Your task to perform on an android device: Add "usb-c to usb-b" to the cart on amazon, then select checkout. Image 0: 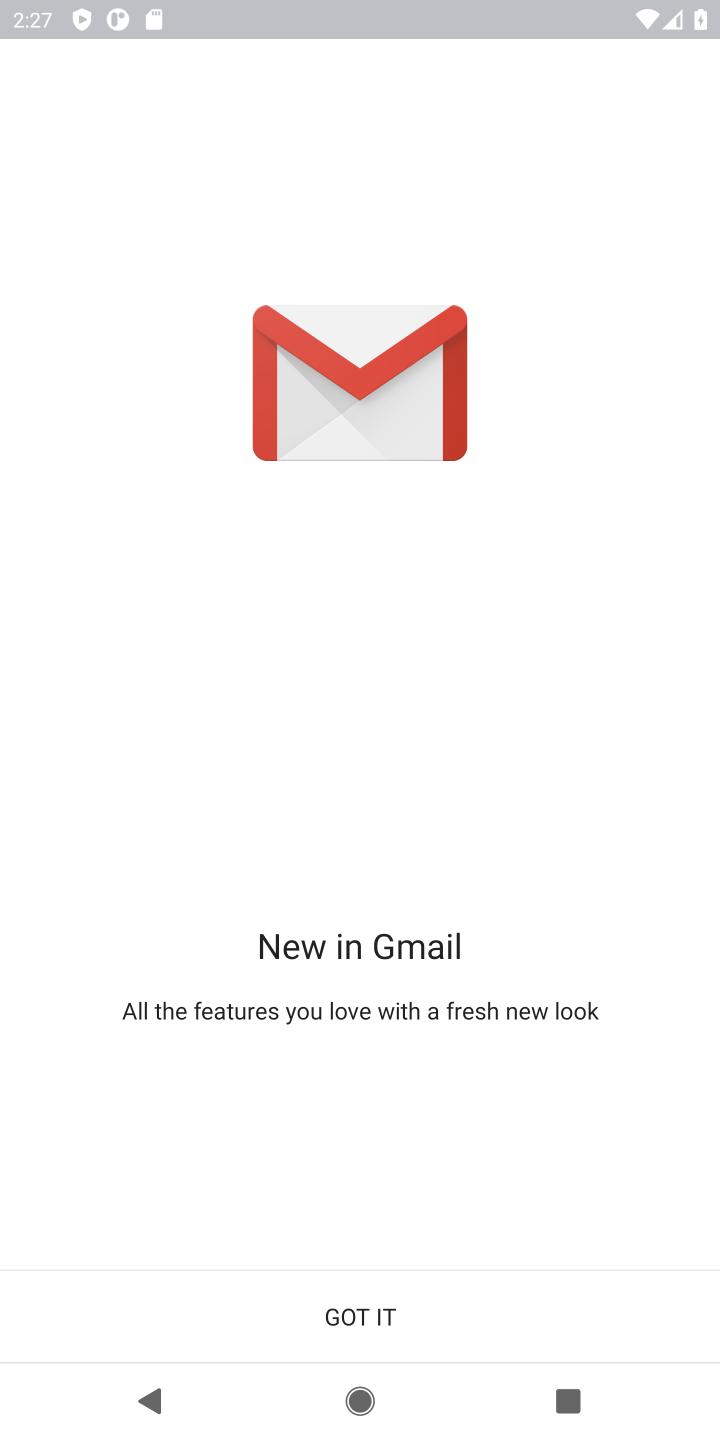
Step 0: click (414, 1315)
Your task to perform on an android device: Add "usb-c to usb-b" to the cart on amazon, then select checkout. Image 1: 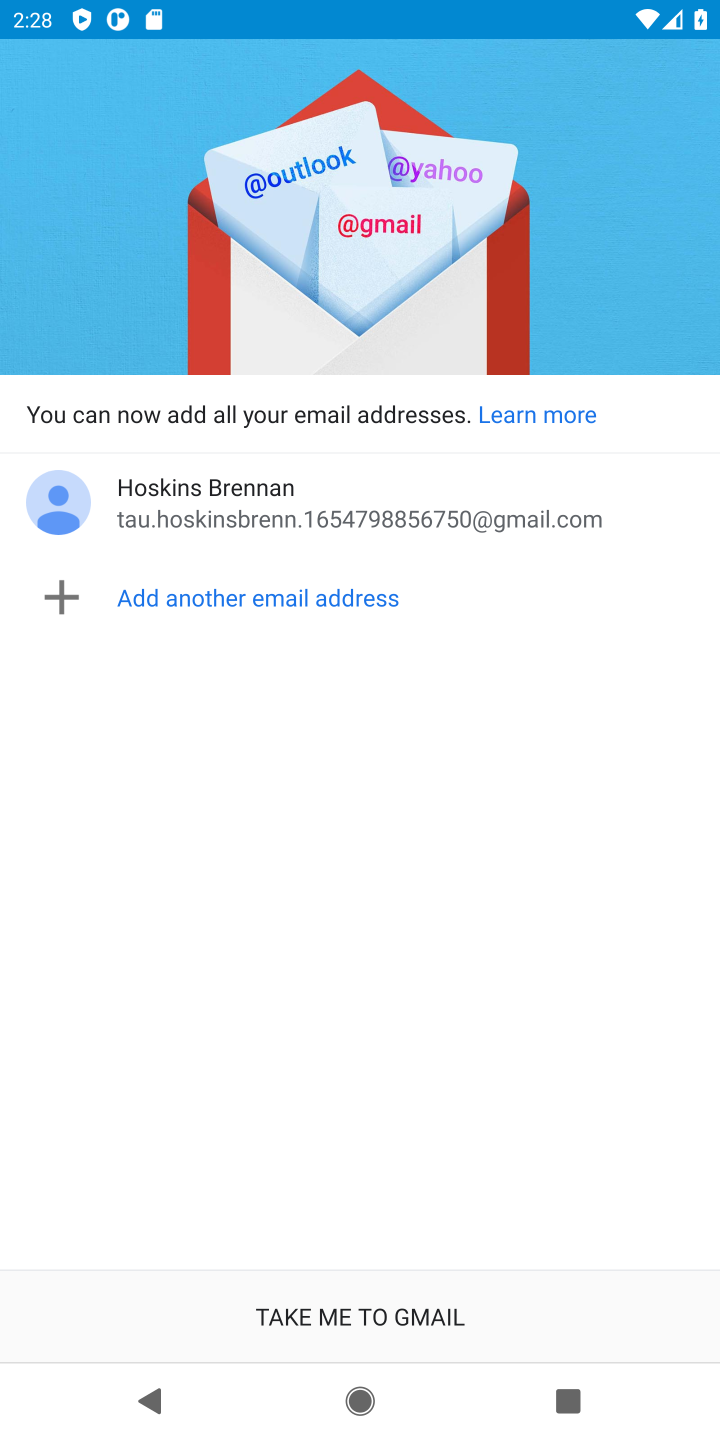
Step 1: press home button
Your task to perform on an android device: Add "usb-c to usb-b" to the cart on amazon, then select checkout. Image 2: 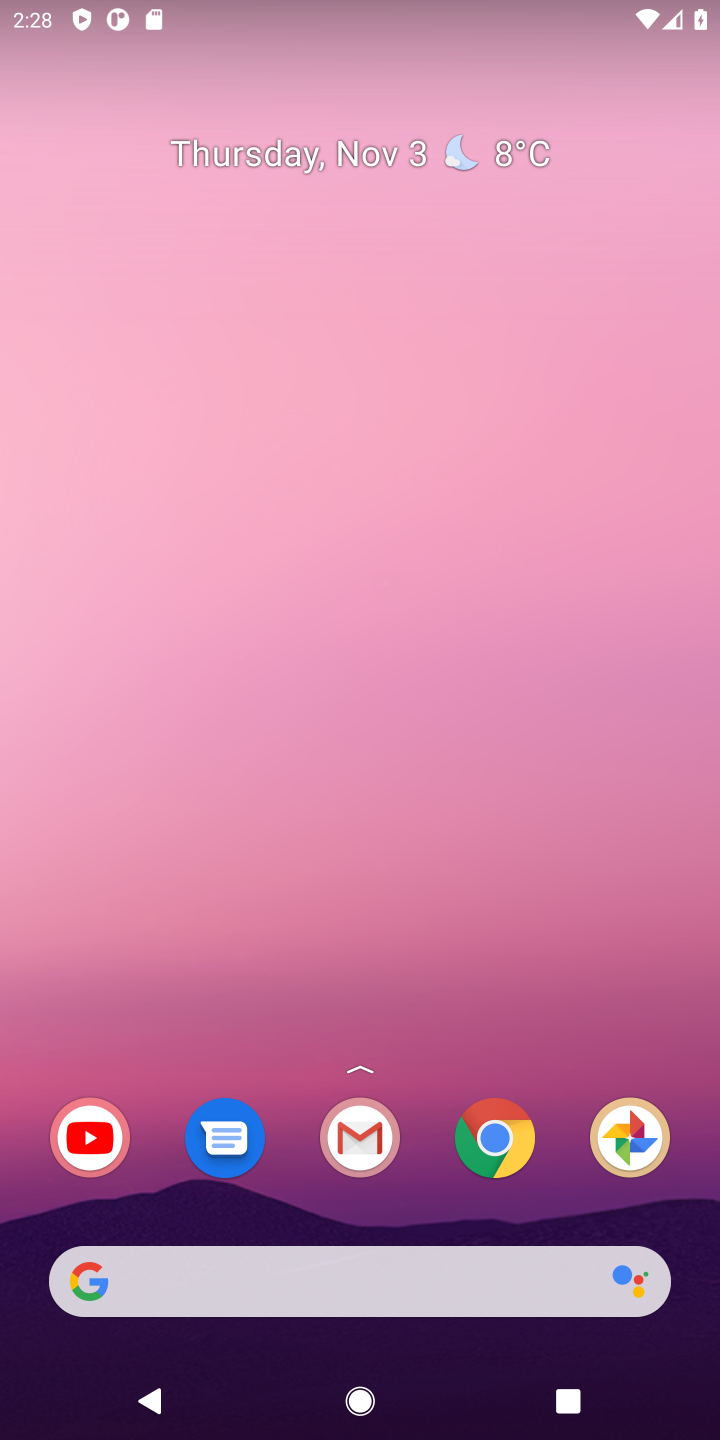
Step 2: click (518, 1134)
Your task to perform on an android device: Add "usb-c to usb-b" to the cart on amazon, then select checkout. Image 3: 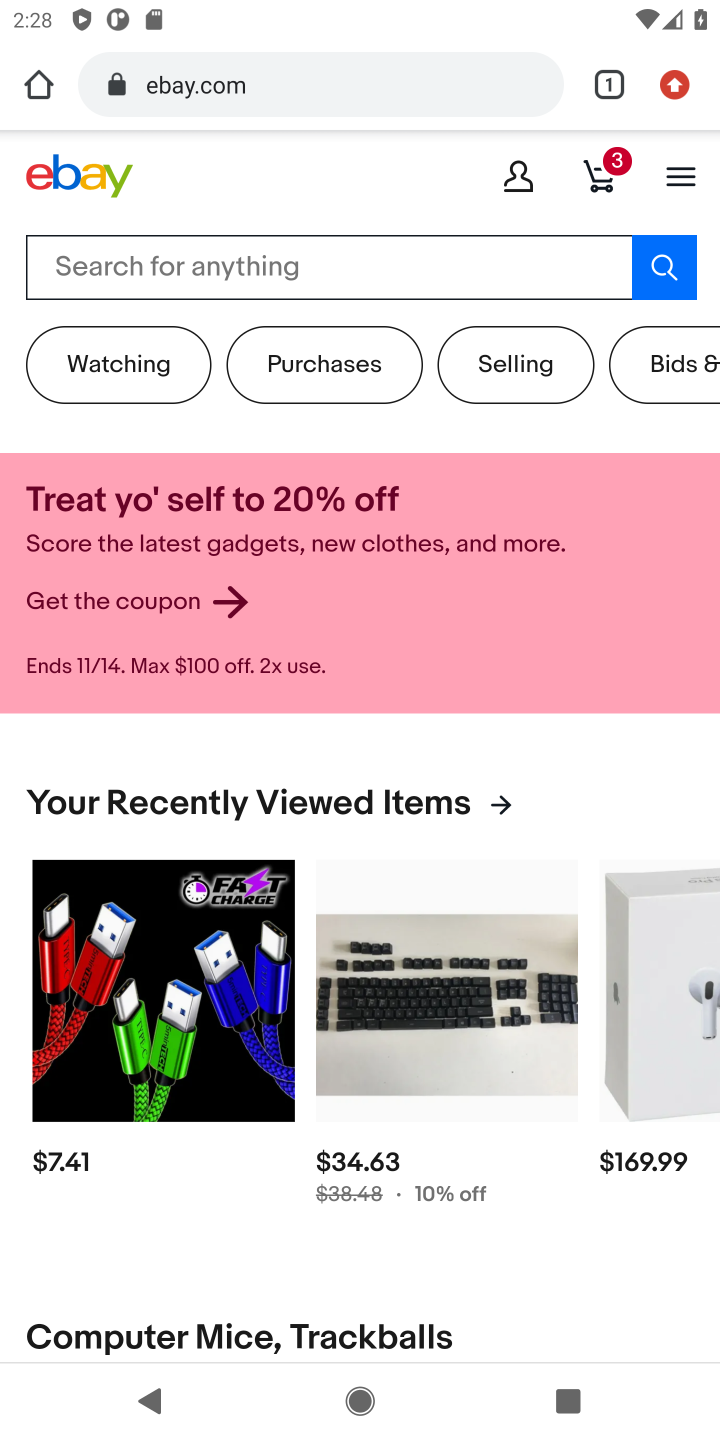
Step 3: click (220, 78)
Your task to perform on an android device: Add "usb-c to usb-b" to the cart on amazon, then select checkout. Image 4: 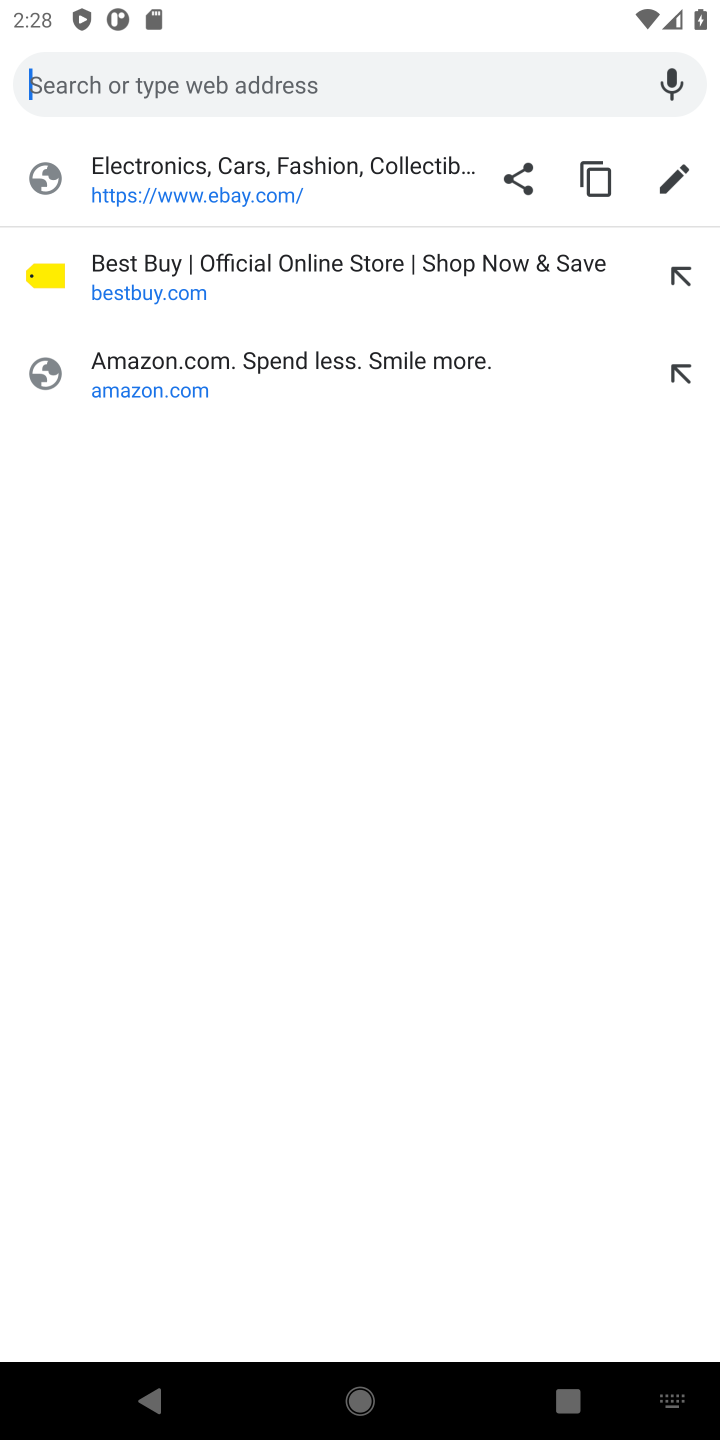
Step 4: type "amazon"
Your task to perform on an android device: Add "usb-c to usb-b" to the cart on amazon, then select checkout. Image 5: 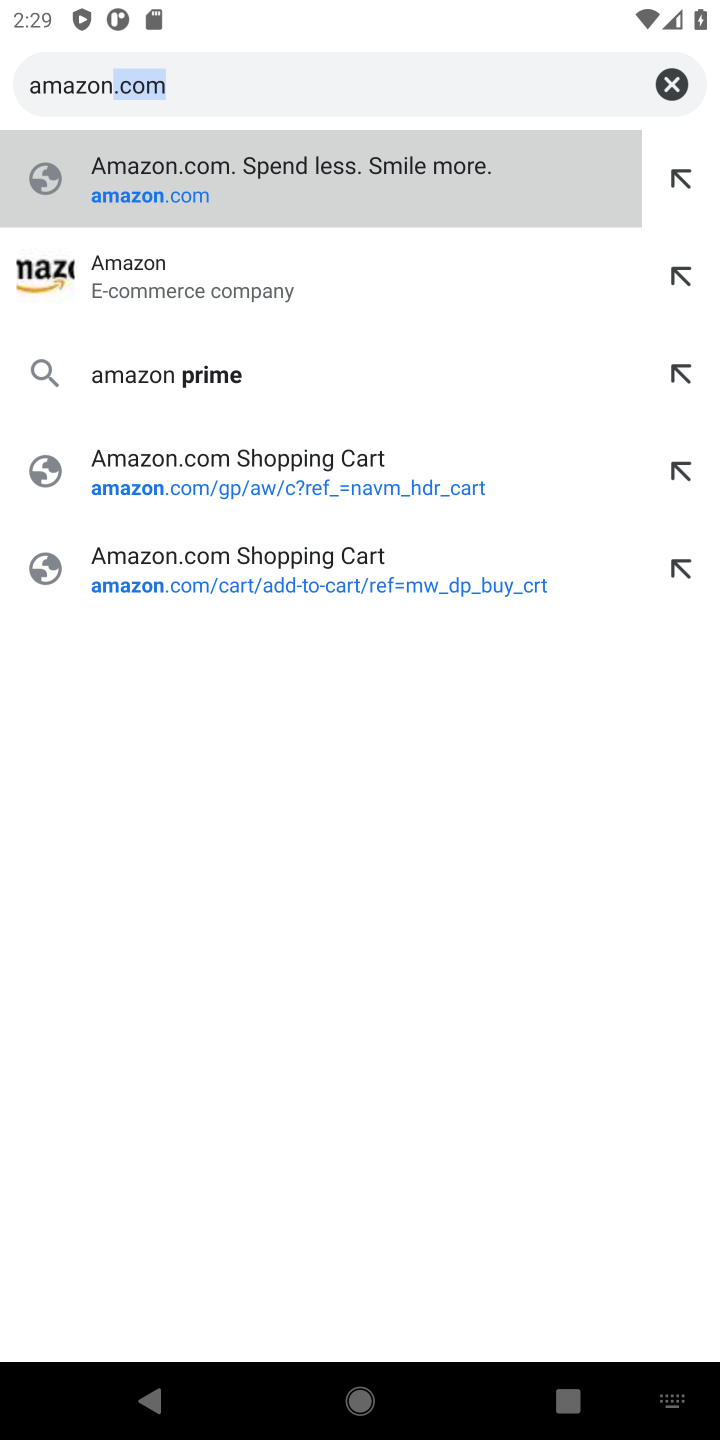
Step 5: click (142, 298)
Your task to perform on an android device: Add "usb-c to usb-b" to the cart on amazon, then select checkout. Image 6: 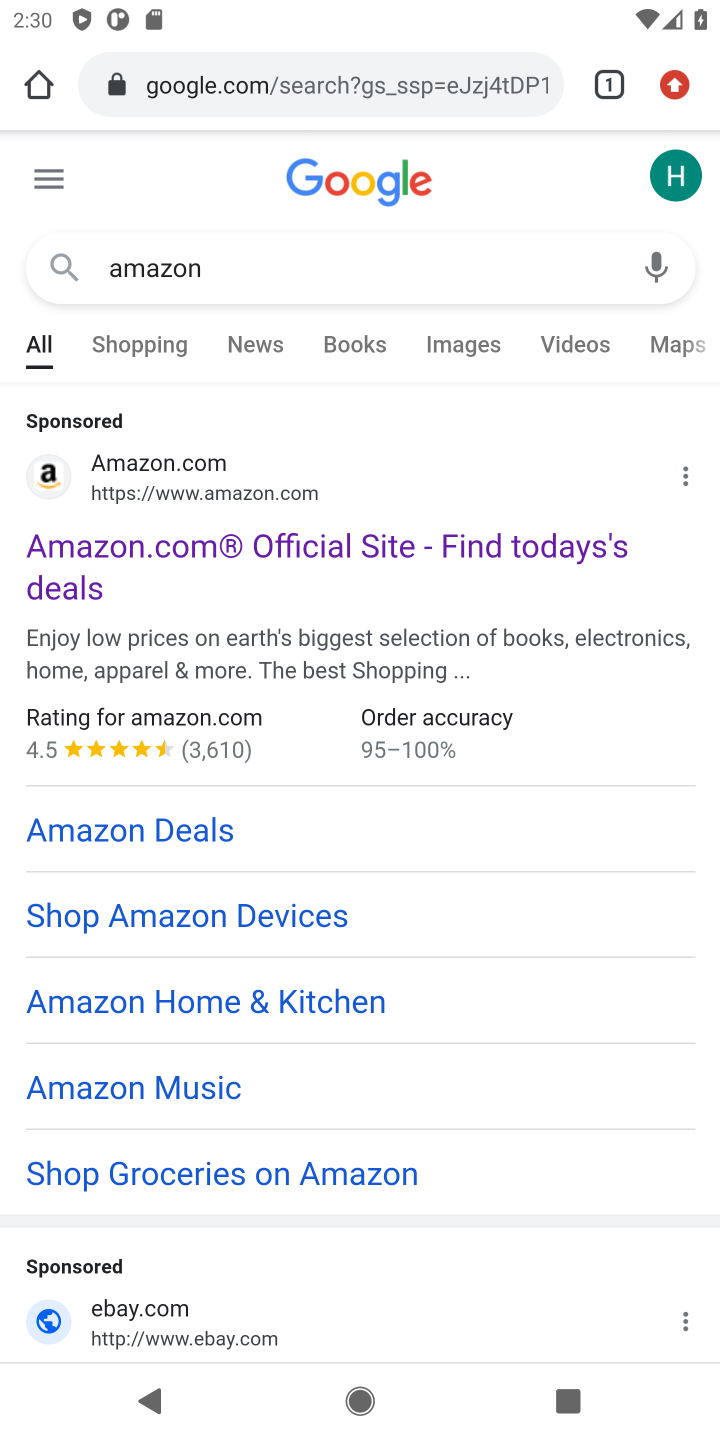
Step 6: click (85, 580)
Your task to perform on an android device: Add "usb-c to usb-b" to the cart on amazon, then select checkout. Image 7: 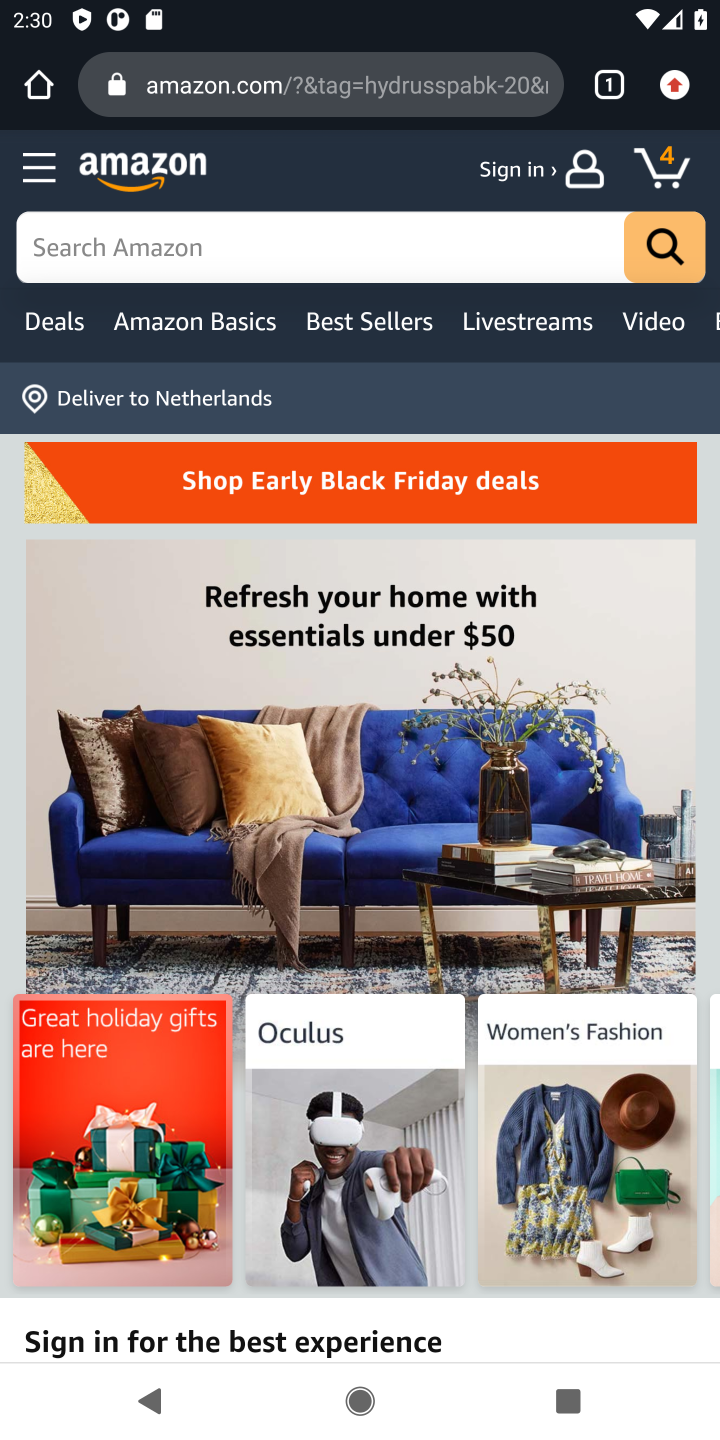
Step 7: click (82, 246)
Your task to perform on an android device: Add "usb-c to usb-b" to the cart on amazon, then select checkout. Image 8: 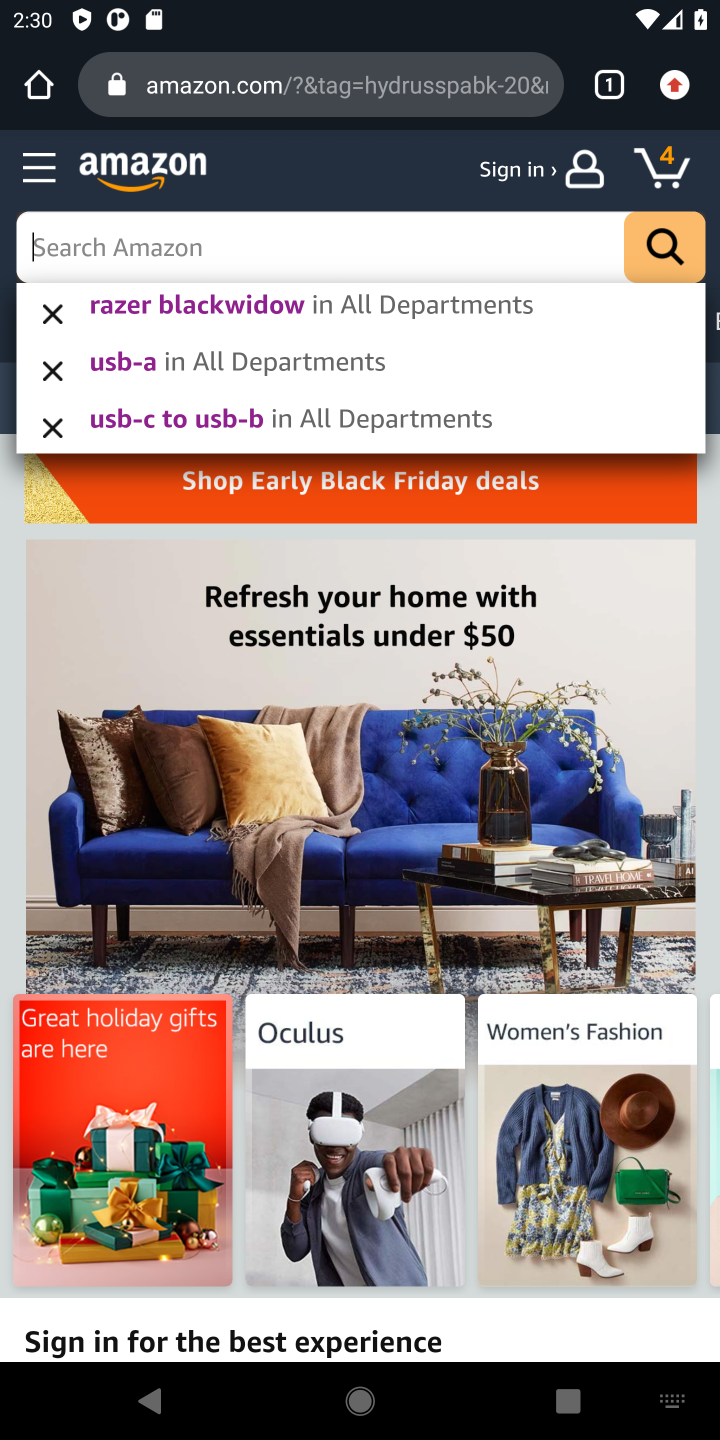
Step 8: type "usb-c to usb-"
Your task to perform on an android device: Add "usb-c to usb-b" to the cart on amazon, then select checkout. Image 9: 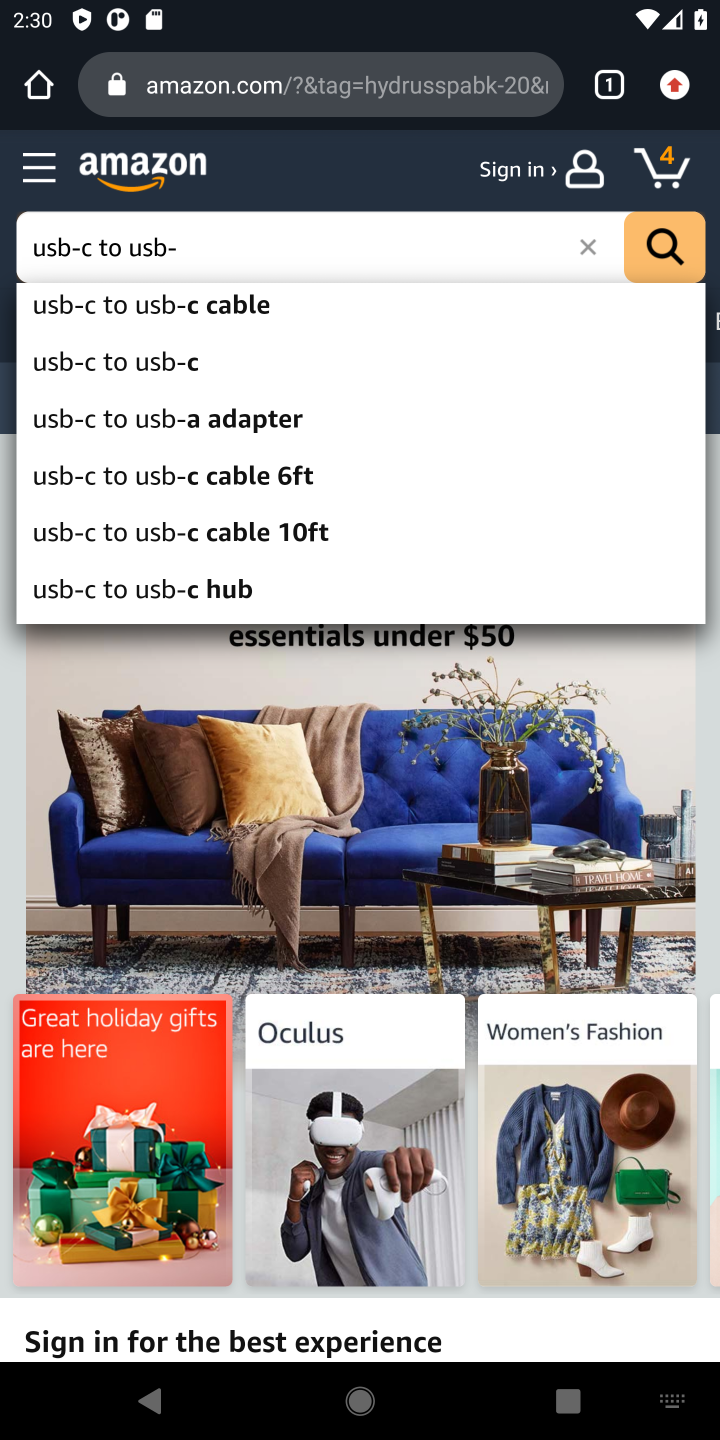
Step 9: type "b"
Your task to perform on an android device: Add "usb-c to usb-b" to the cart on amazon, then select checkout. Image 10: 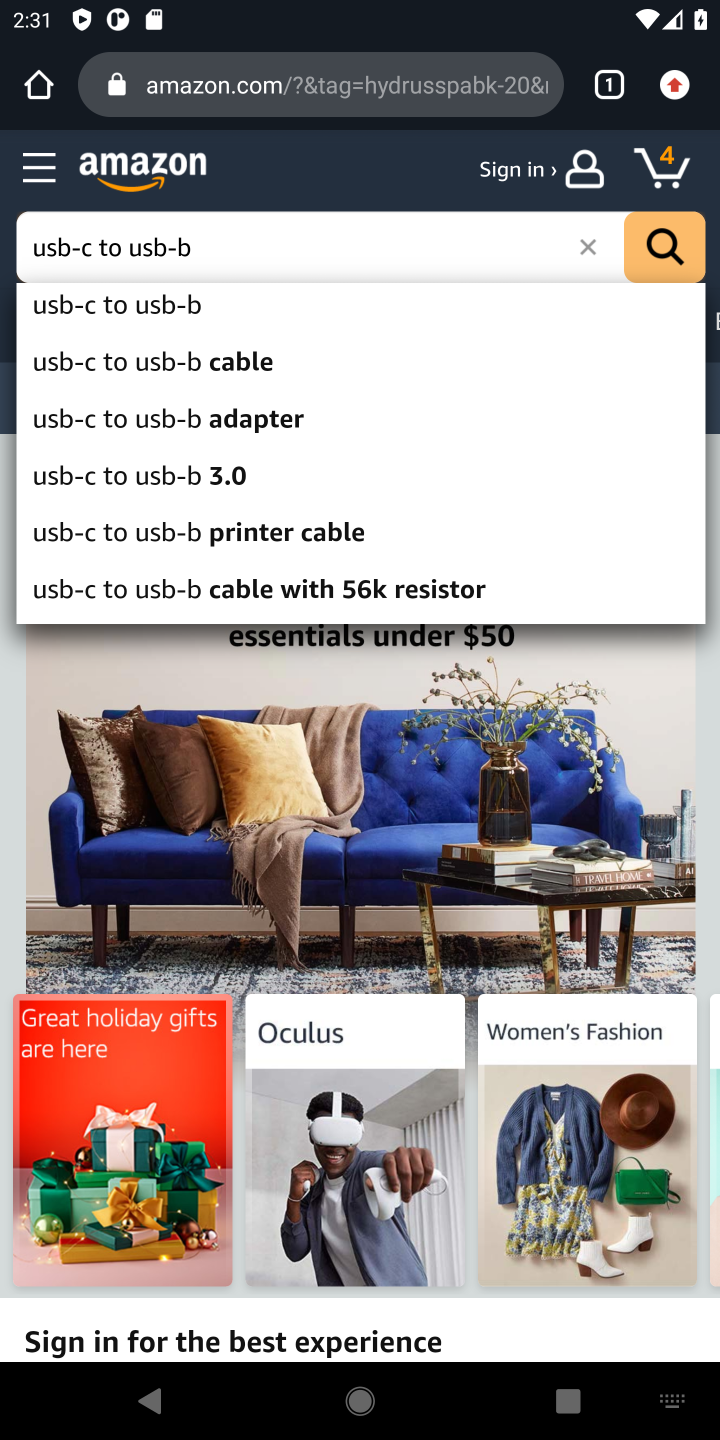
Step 10: click (676, 243)
Your task to perform on an android device: Add "usb-c to usb-b" to the cart on amazon, then select checkout. Image 11: 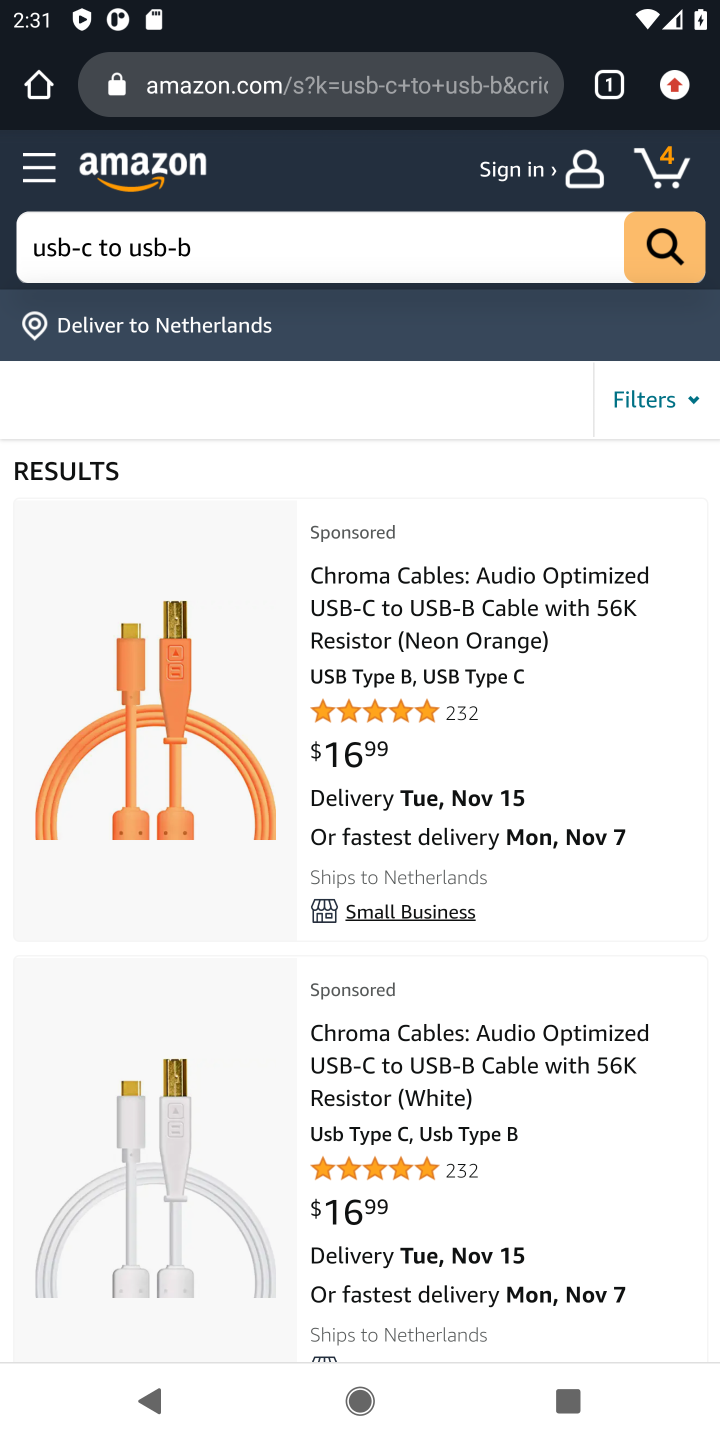
Step 11: click (350, 628)
Your task to perform on an android device: Add "usb-c to usb-b" to the cart on amazon, then select checkout. Image 12: 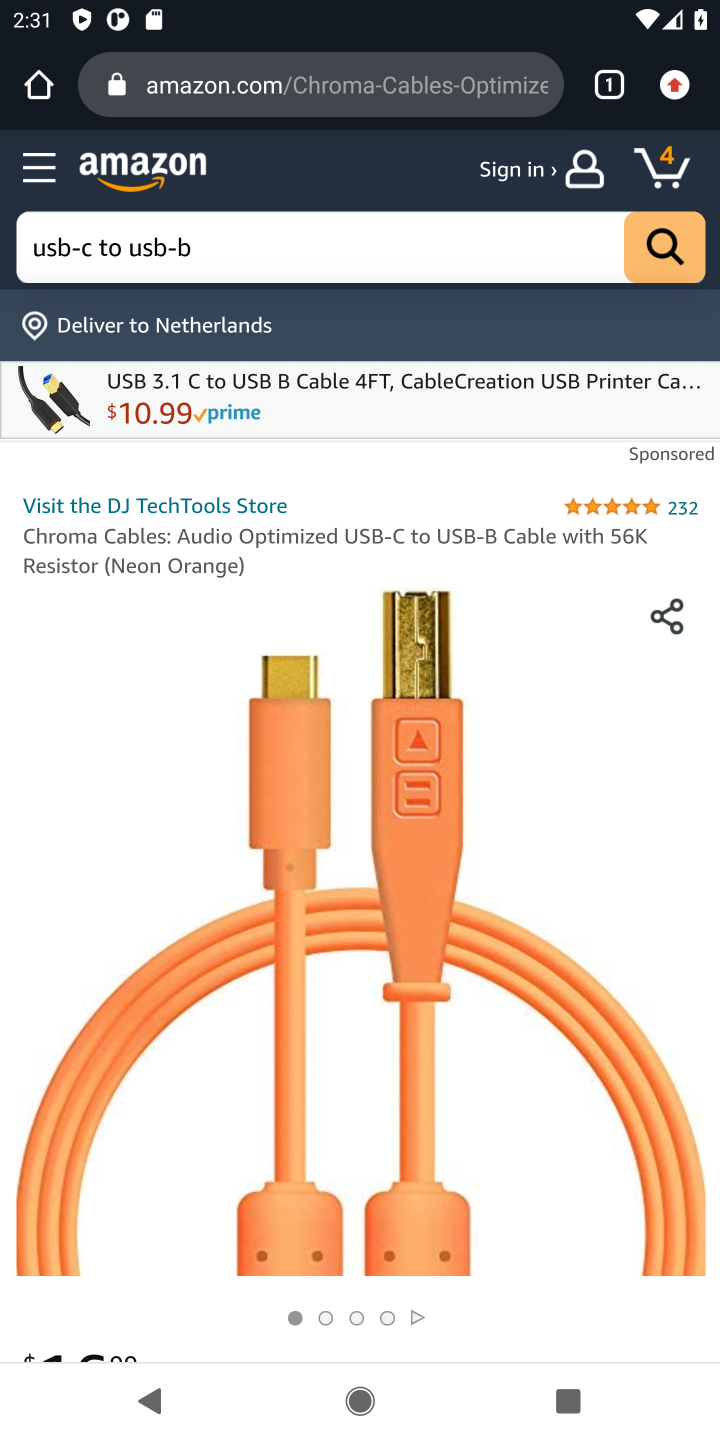
Step 12: drag from (169, 1295) to (412, 14)
Your task to perform on an android device: Add "usb-c to usb-b" to the cart on amazon, then select checkout. Image 13: 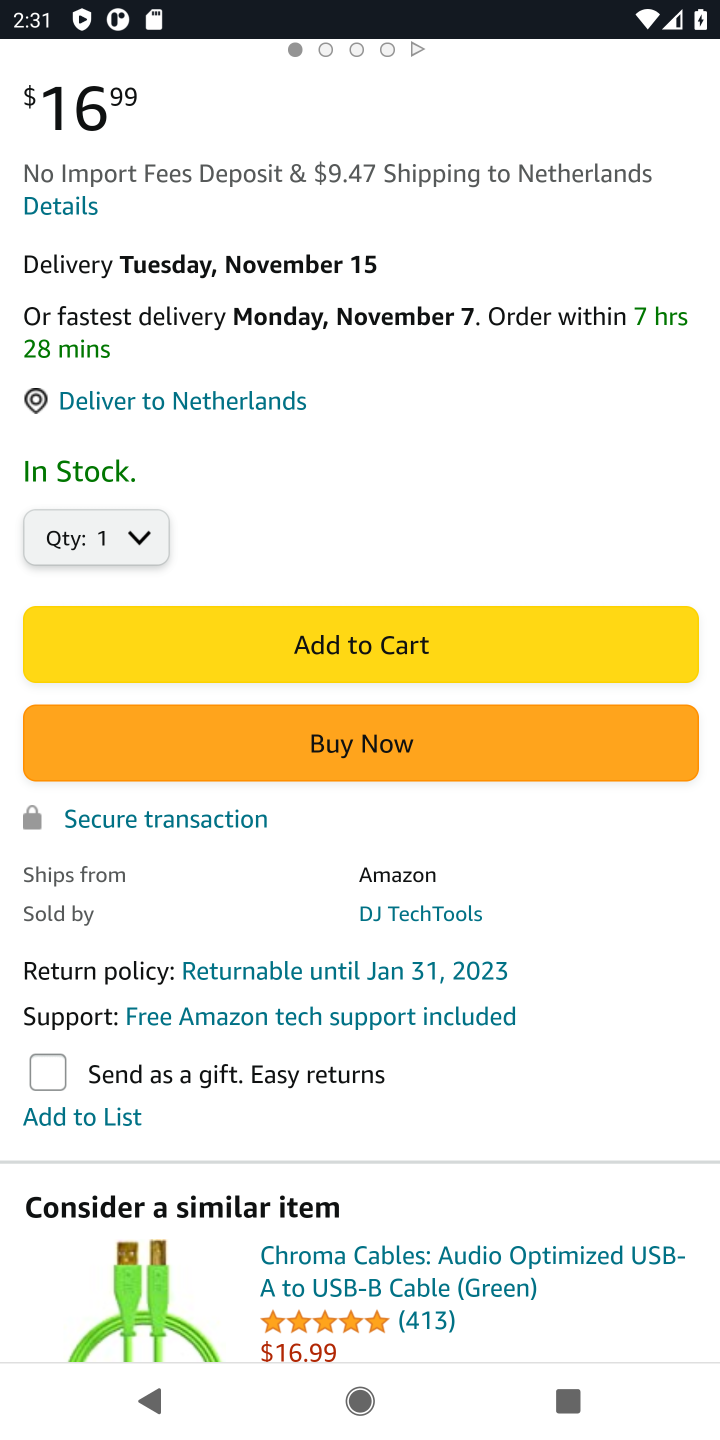
Step 13: click (254, 664)
Your task to perform on an android device: Add "usb-c to usb-b" to the cart on amazon, then select checkout. Image 14: 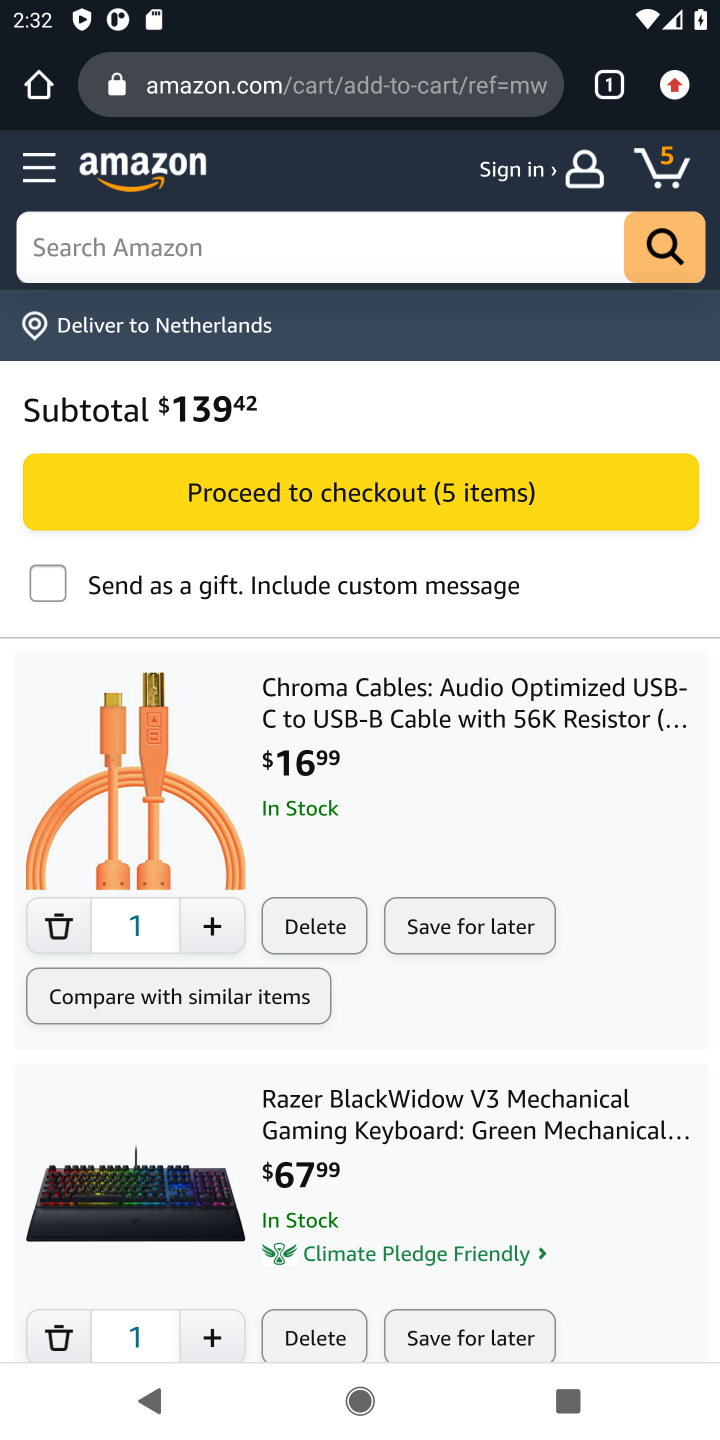
Step 14: click (294, 470)
Your task to perform on an android device: Add "usb-c to usb-b" to the cart on amazon, then select checkout. Image 15: 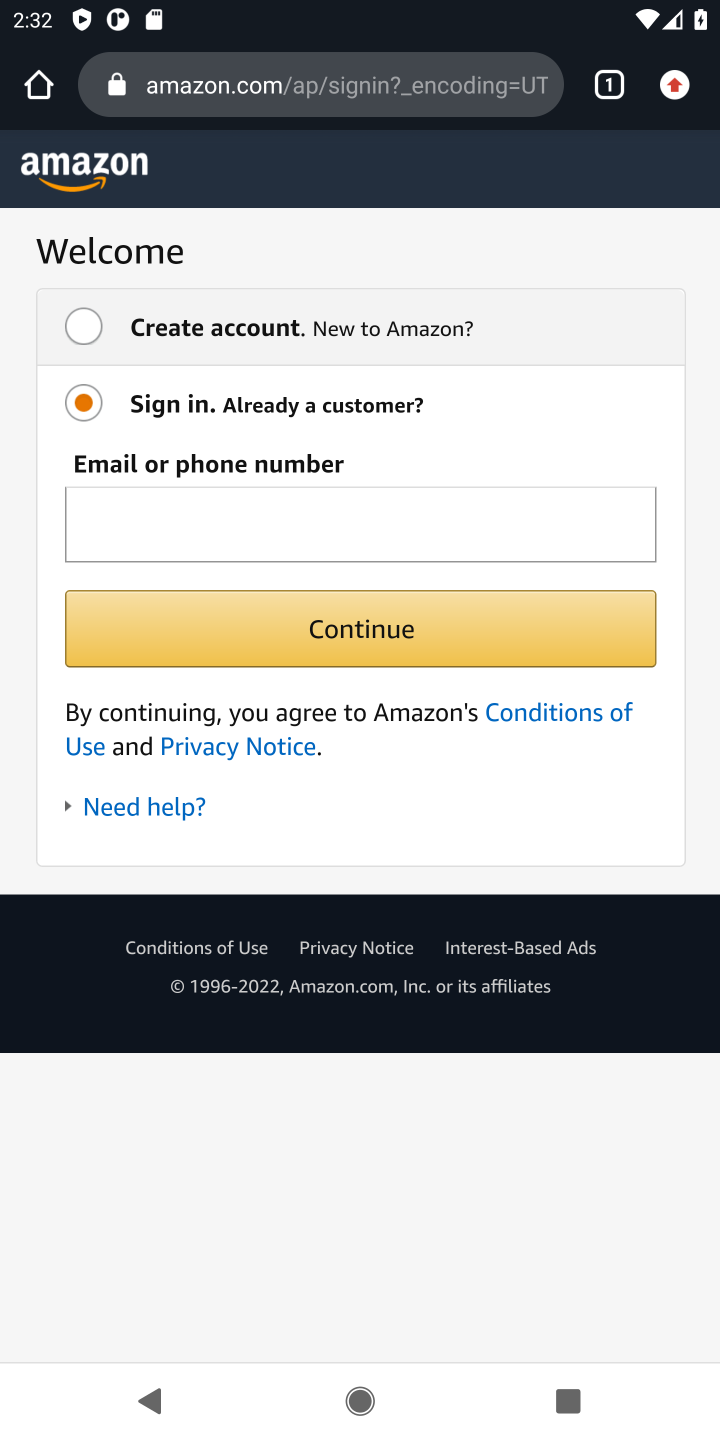
Step 15: task complete